Your task to perform on an android device: check storage Image 0: 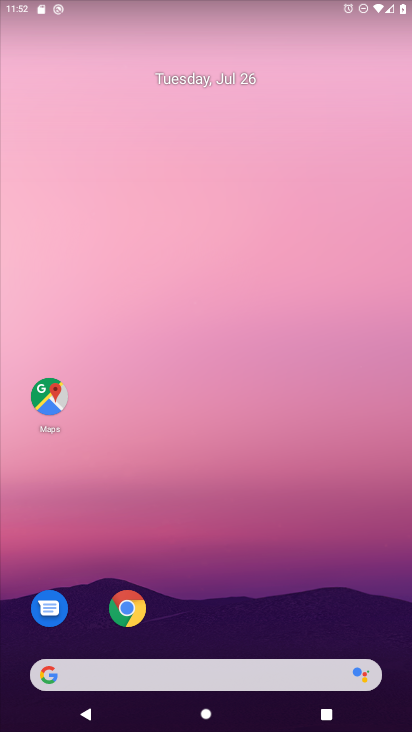
Step 0: drag from (263, 563) to (253, 121)
Your task to perform on an android device: check storage Image 1: 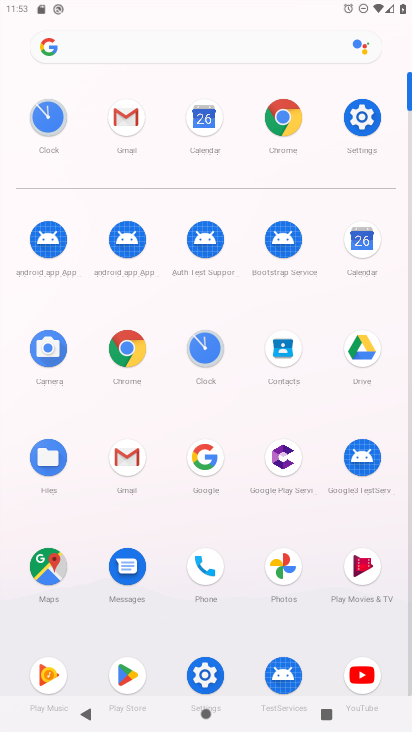
Step 1: click (361, 112)
Your task to perform on an android device: check storage Image 2: 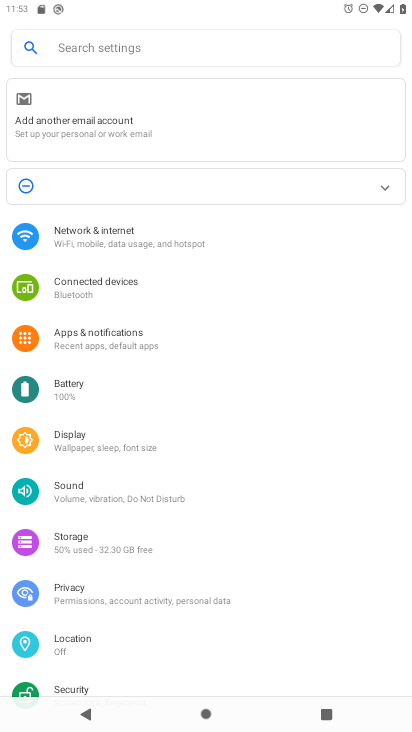
Step 2: click (121, 551)
Your task to perform on an android device: check storage Image 3: 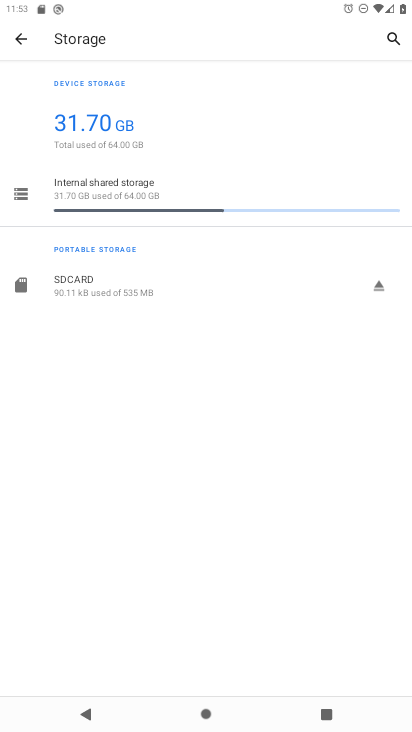
Step 3: task complete